Your task to perform on an android device: Find coffee shops on Maps Image 0: 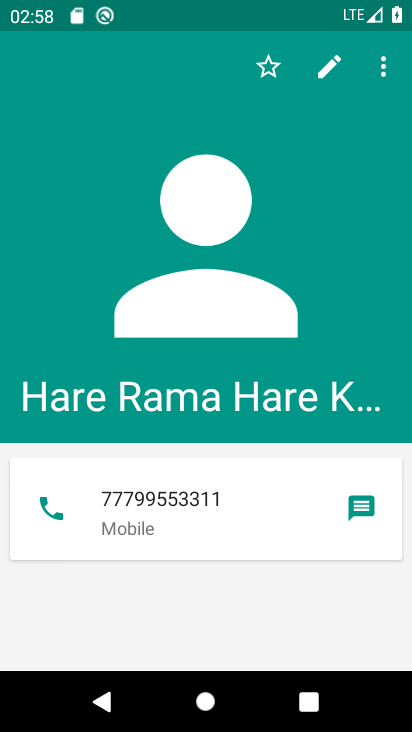
Step 0: press home button
Your task to perform on an android device: Find coffee shops on Maps Image 1: 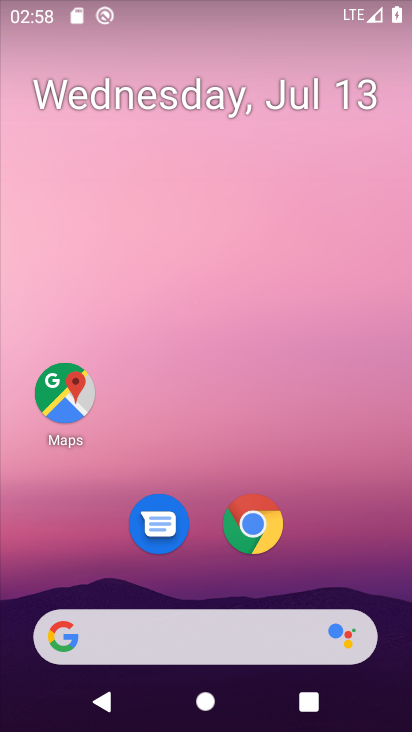
Step 1: click (58, 389)
Your task to perform on an android device: Find coffee shops on Maps Image 2: 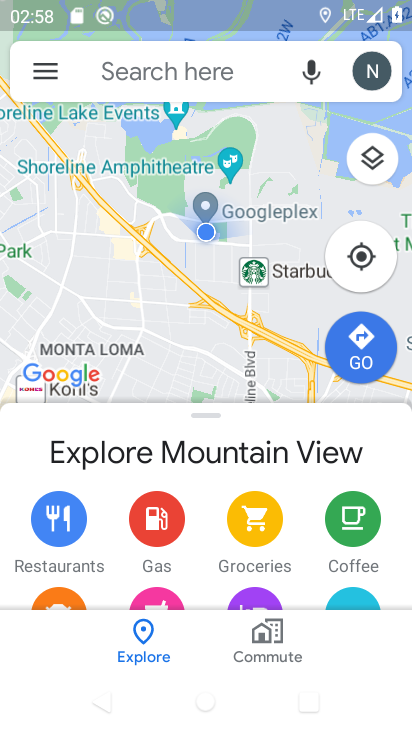
Step 2: click (157, 69)
Your task to perform on an android device: Find coffee shops on Maps Image 3: 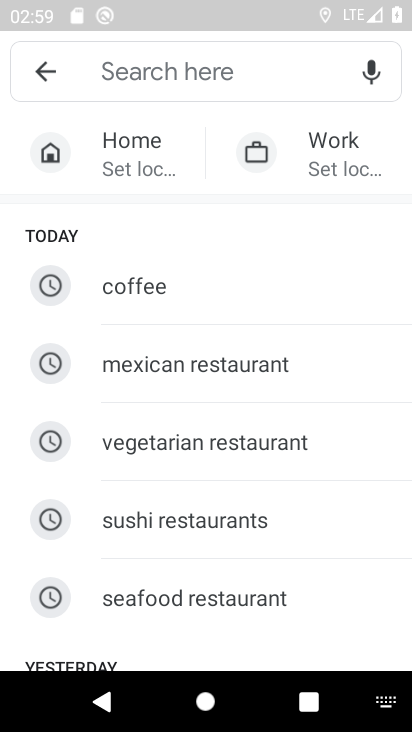
Step 3: click (145, 273)
Your task to perform on an android device: Find coffee shops on Maps Image 4: 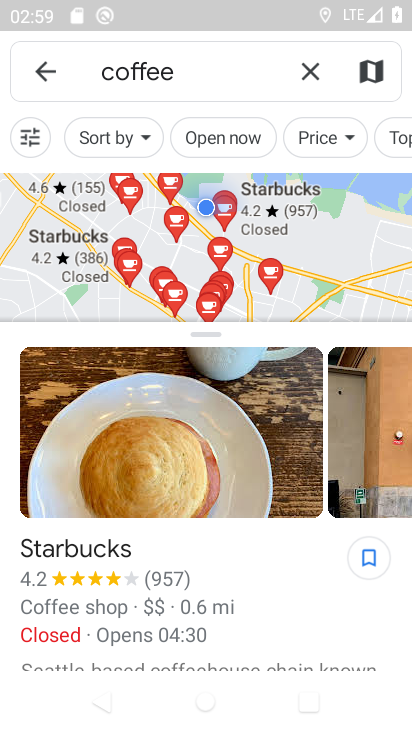
Step 4: task complete